Your task to perform on an android device: check the backup settings in the google photos Image 0: 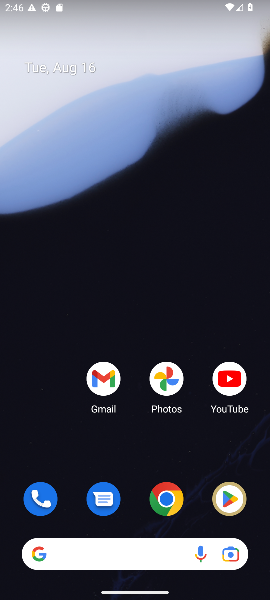
Step 0: drag from (175, 571) to (104, 57)
Your task to perform on an android device: check the backup settings in the google photos Image 1: 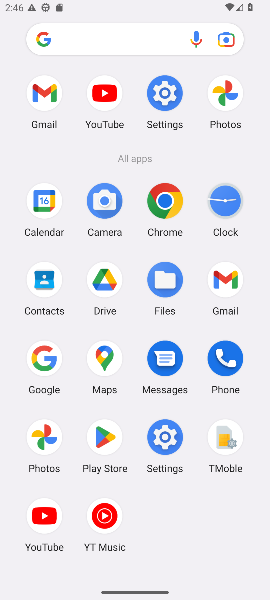
Step 1: click (35, 438)
Your task to perform on an android device: check the backup settings in the google photos Image 2: 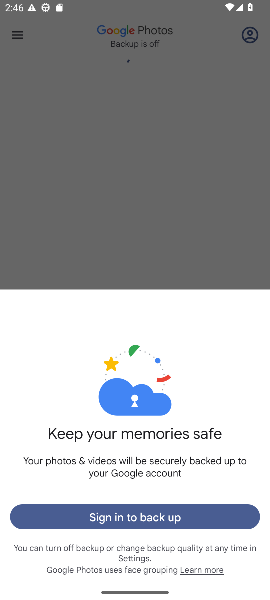
Step 2: click (134, 511)
Your task to perform on an android device: check the backup settings in the google photos Image 3: 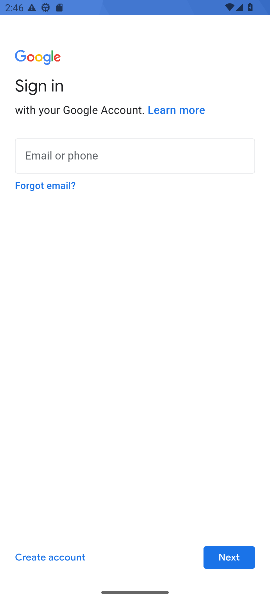
Step 3: click (238, 562)
Your task to perform on an android device: check the backup settings in the google photos Image 4: 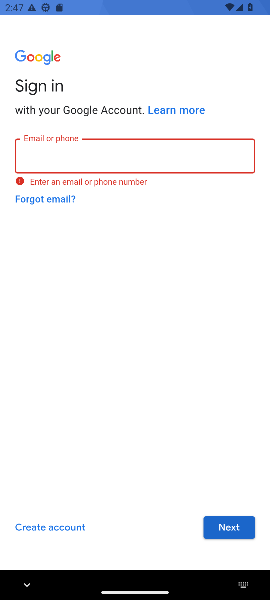
Step 4: task complete